Your task to perform on an android device: Open wifi settings Image 0: 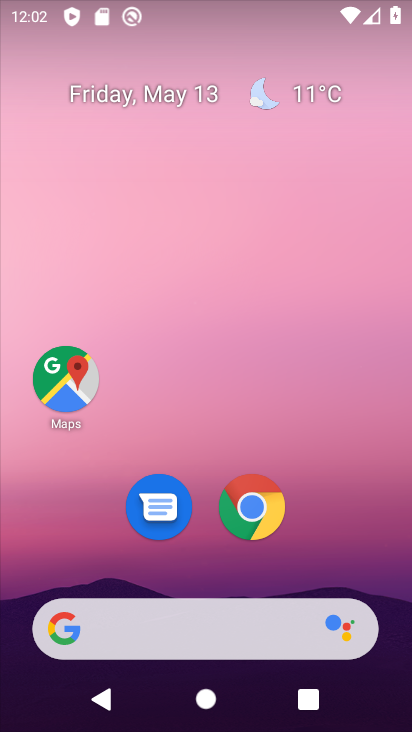
Step 0: drag from (211, 575) to (149, 31)
Your task to perform on an android device: Open wifi settings Image 1: 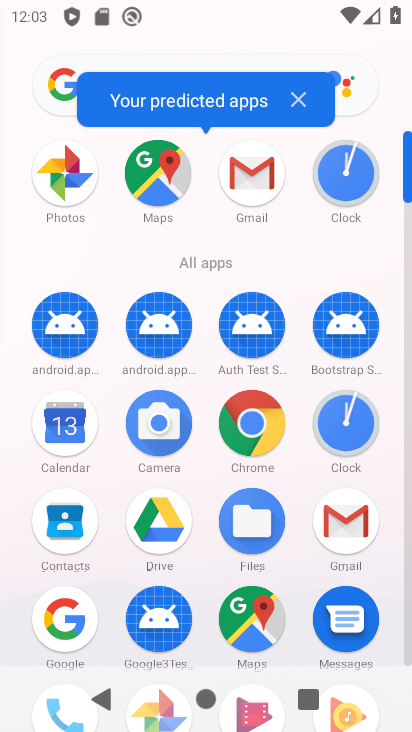
Step 1: drag from (208, 586) to (187, 193)
Your task to perform on an android device: Open wifi settings Image 2: 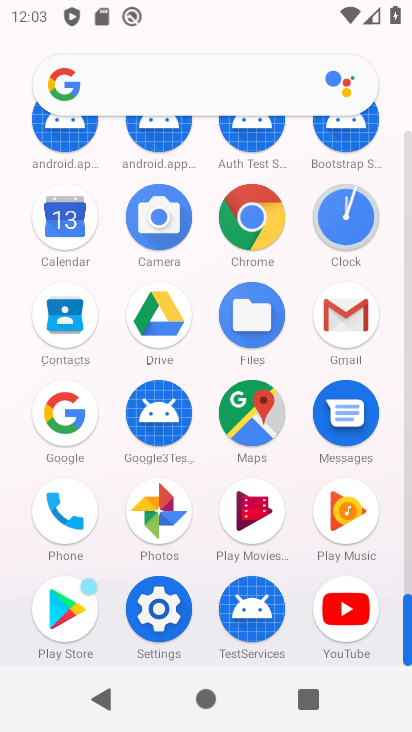
Step 2: click (158, 618)
Your task to perform on an android device: Open wifi settings Image 3: 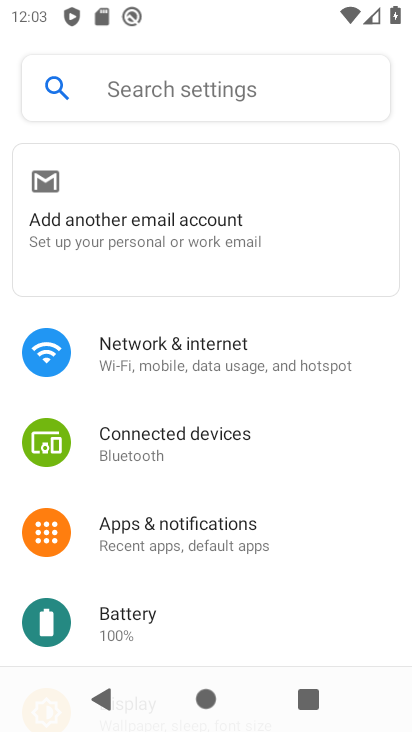
Step 3: click (163, 368)
Your task to perform on an android device: Open wifi settings Image 4: 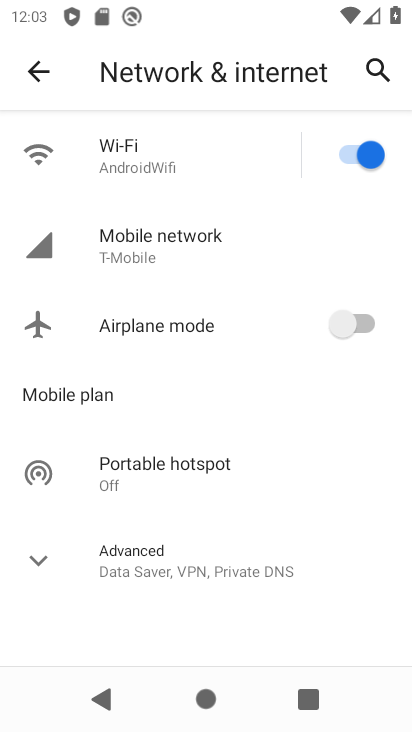
Step 4: click (102, 140)
Your task to perform on an android device: Open wifi settings Image 5: 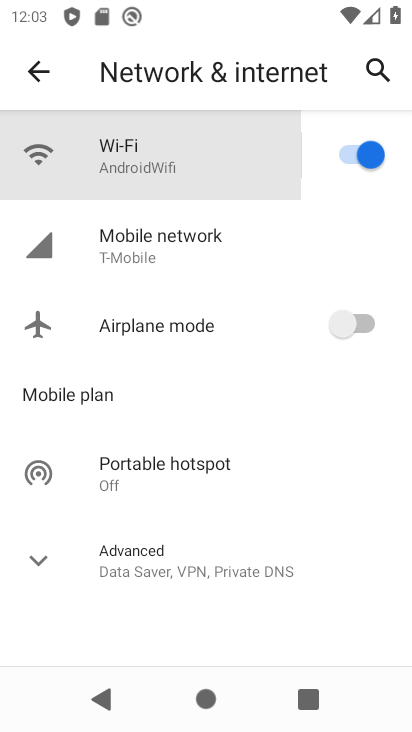
Step 5: task complete